Your task to perform on an android device: Search for vegetarian restaurants on Maps Image 0: 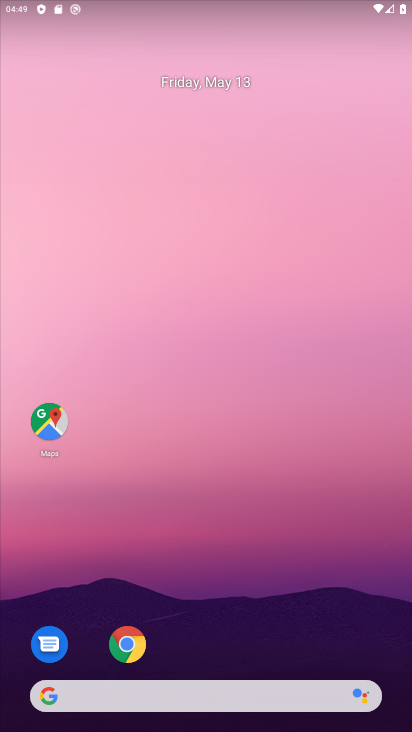
Step 0: click (46, 415)
Your task to perform on an android device: Search for vegetarian restaurants on Maps Image 1: 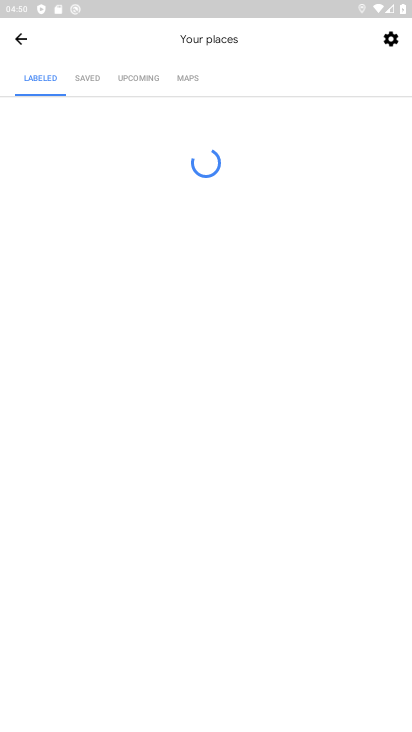
Step 1: click (18, 31)
Your task to perform on an android device: Search for vegetarian restaurants on Maps Image 2: 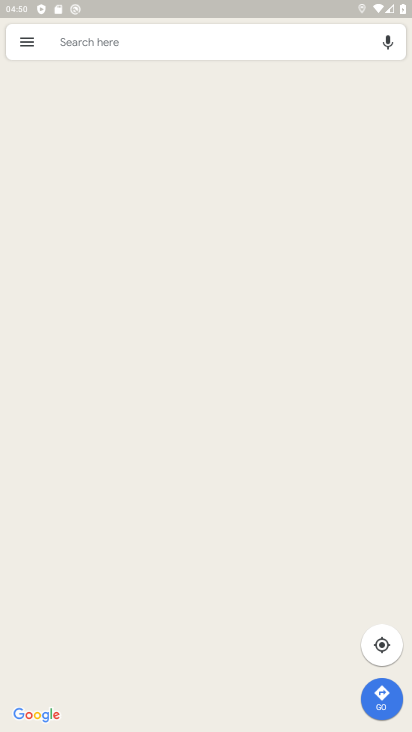
Step 2: click (115, 39)
Your task to perform on an android device: Search for vegetarian restaurants on Maps Image 3: 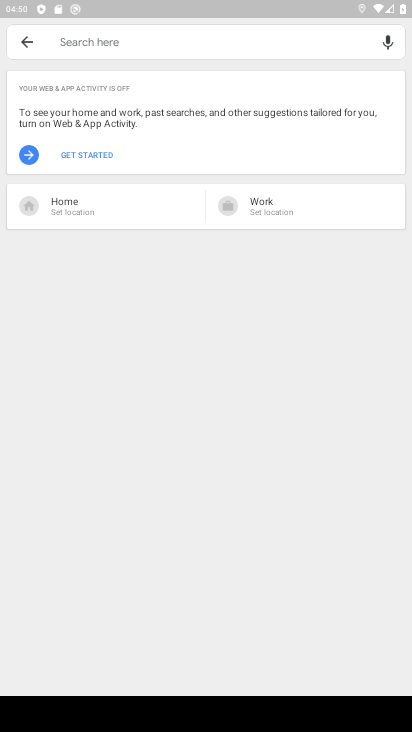
Step 3: click (115, 39)
Your task to perform on an android device: Search for vegetarian restaurants on Maps Image 4: 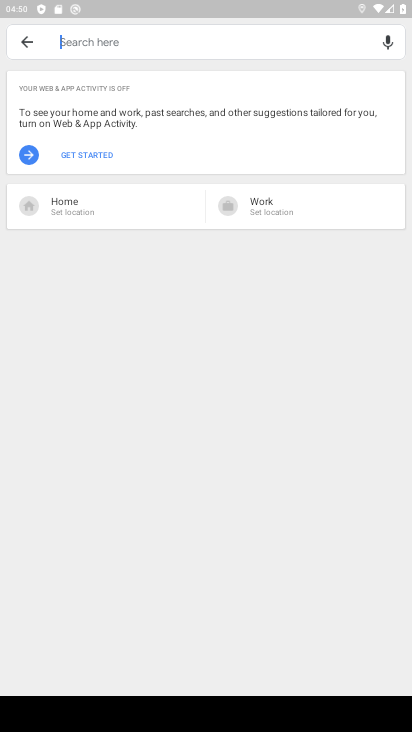
Step 4: type "vegetarian restaurants"
Your task to perform on an android device: Search for vegetarian restaurants on Maps Image 5: 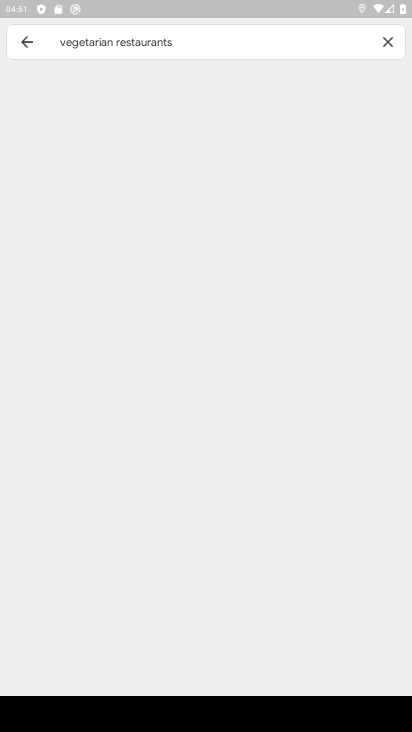
Step 5: task complete